Your task to perform on an android device: change keyboard looks Image 0: 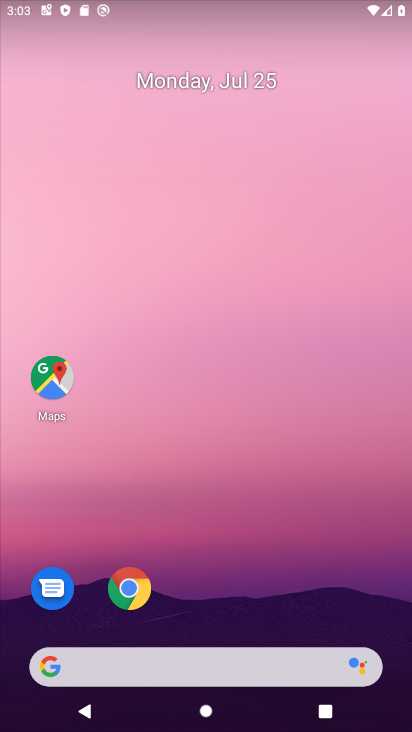
Step 0: drag from (307, 574) to (256, 1)
Your task to perform on an android device: change keyboard looks Image 1: 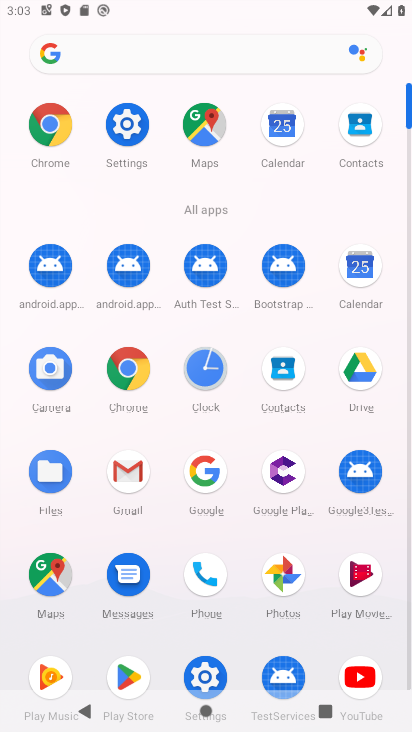
Step 1: click (131, 124)
Your task to perform on an android device: change keyboard looks Image 2: 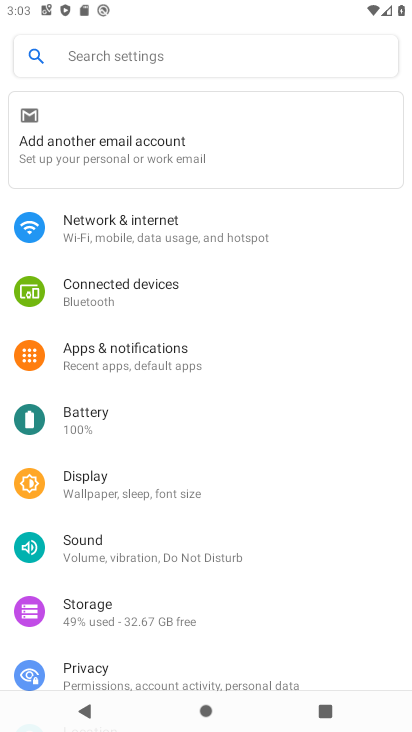
Step 2: drag from (178, 624) to (293, 65)
Your task to perform on an android device: change keyboard looks Image 3: 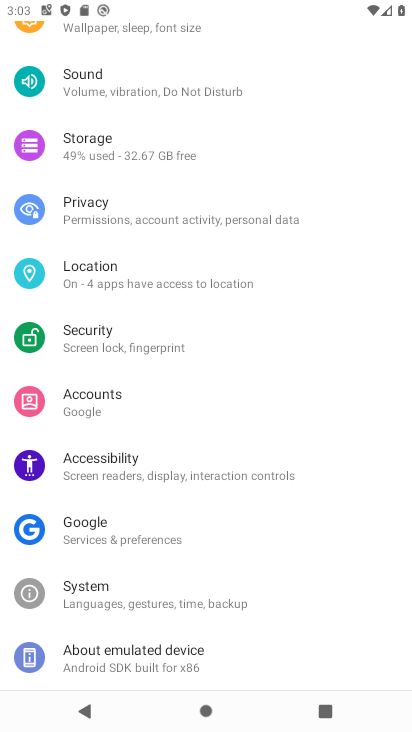
Step 3: click (208, 613)
Your task to perform on an android device: change keyboard looks Image 4: 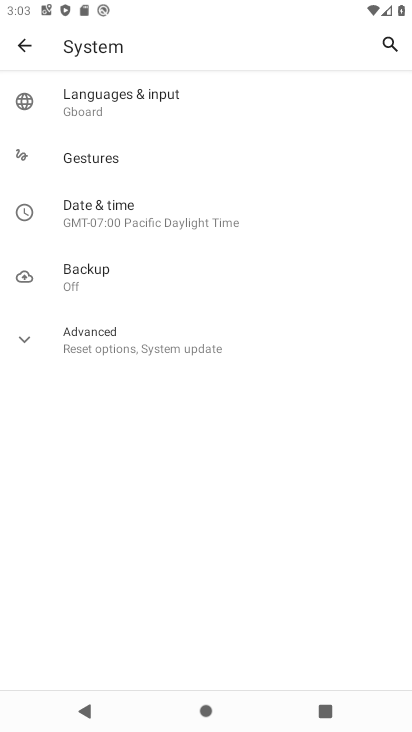
Step 4: click (177, 112)
Your task to perform on an android device: change keyboard looks Image 5: 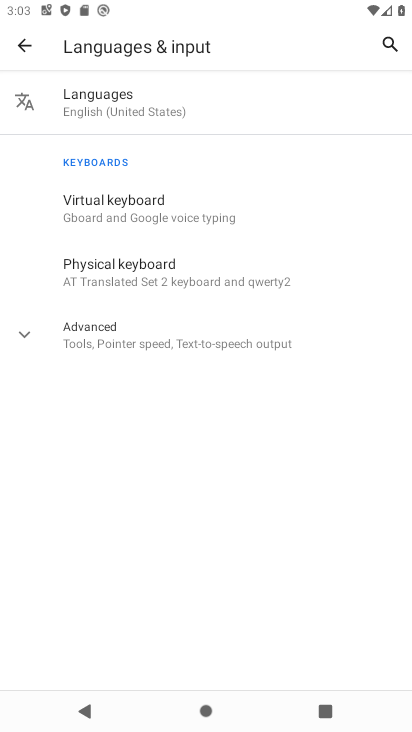
Step 5: click (151, 205)
Your task to perform on an android device: change keyboard looks Image 6: 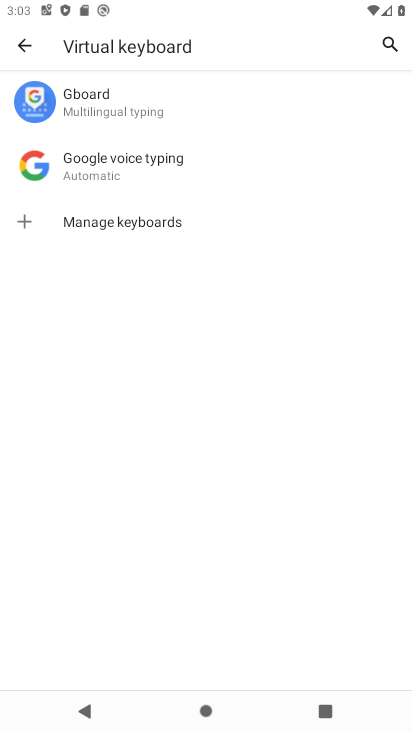
Step 6: click (146, 110)
Your task to perform on an android device: change keyboard looks Image 7: 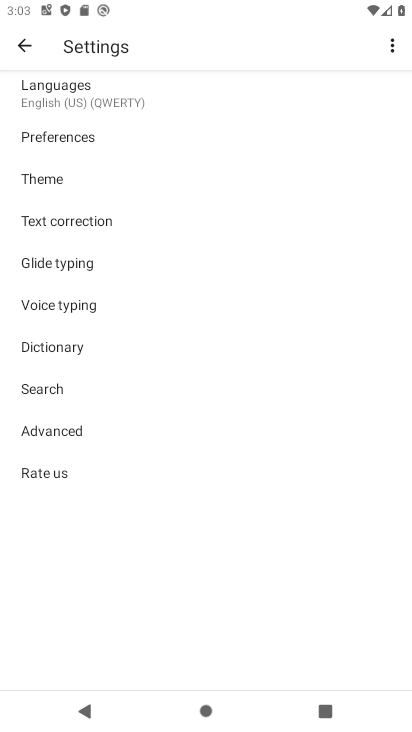
Step 7: click (54, 179)
Your task to perform on an android device: change keyboard looks Image 8: 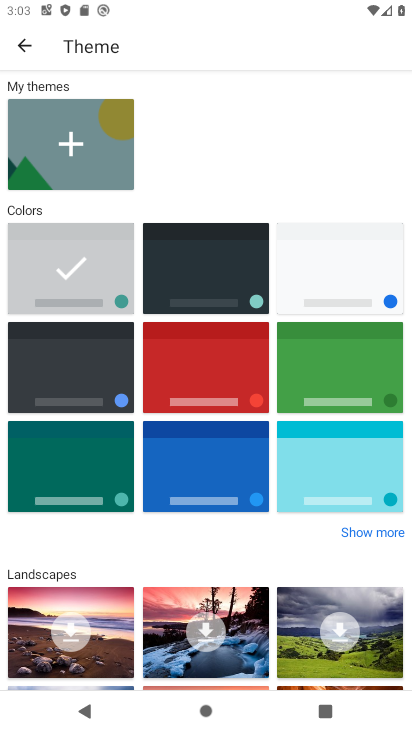
Step 8: click (375, 270)
Your task to perform on an android device: change keyboard looks Image 9: 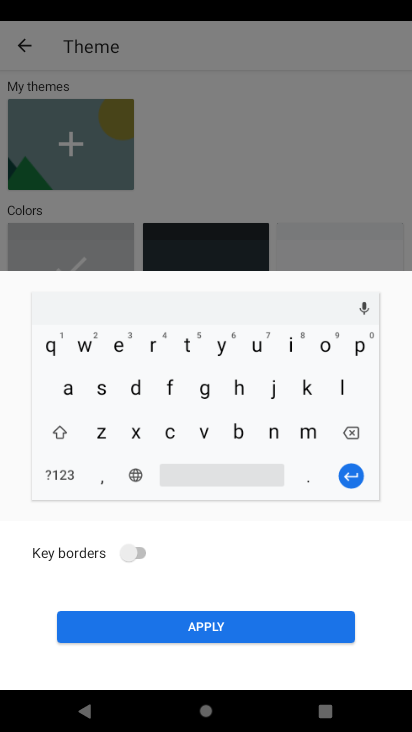
Step 9: click (270, 629)
Your task to perform on an android device: change keyboard looks Image 10: 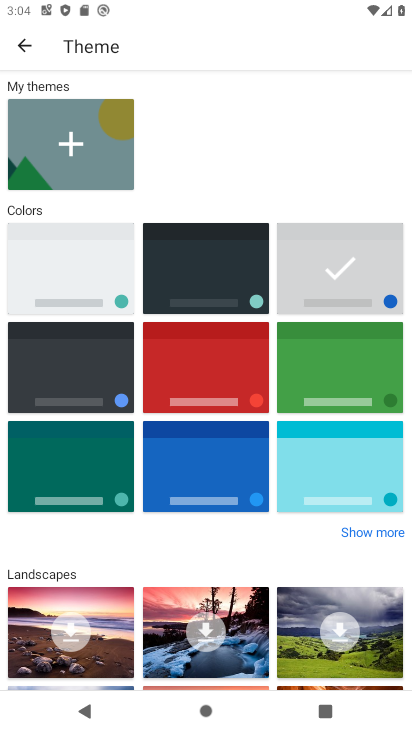
Step 10: task complete